Your task to perform on an android device: turn on improve location accuracy Image 0: 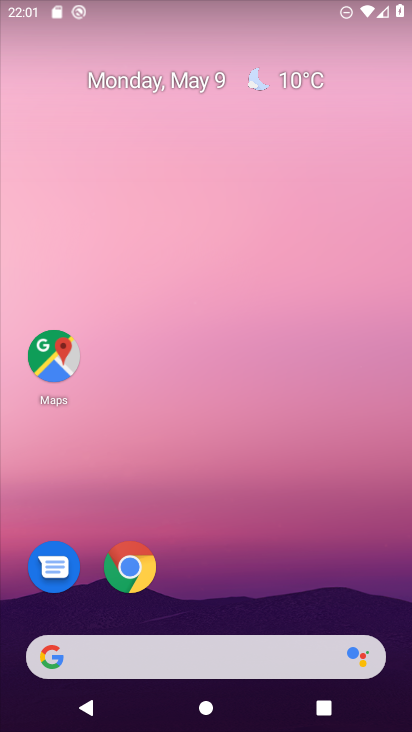
Step 0: drag from (255, 576) to (336, 51)
Your task to perform on an android device: turn on improve location accuracy Image 1: 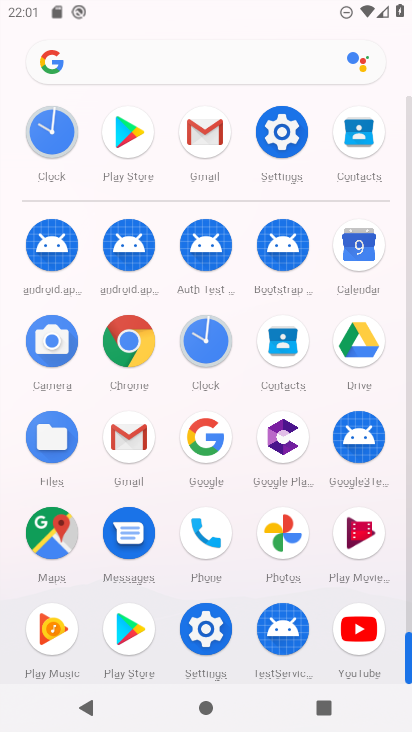
Step 1: click (298, 137)
Your task to perform on an android device: turn on improve location accuracy Image 2: 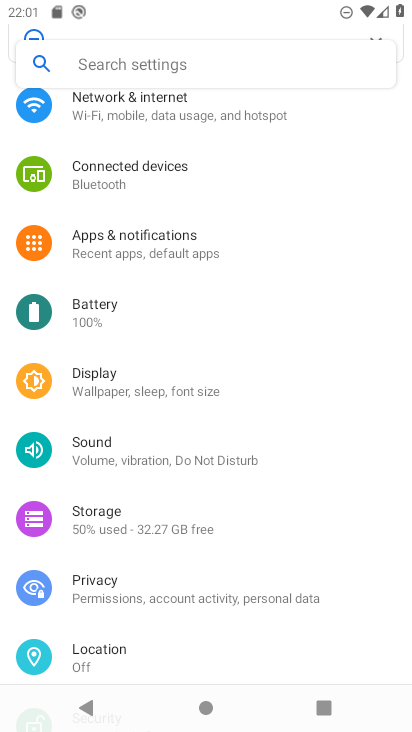
Step 2: click (131, 653)
Your task to perform on an android device: turn on improve location accuracy Image 3: 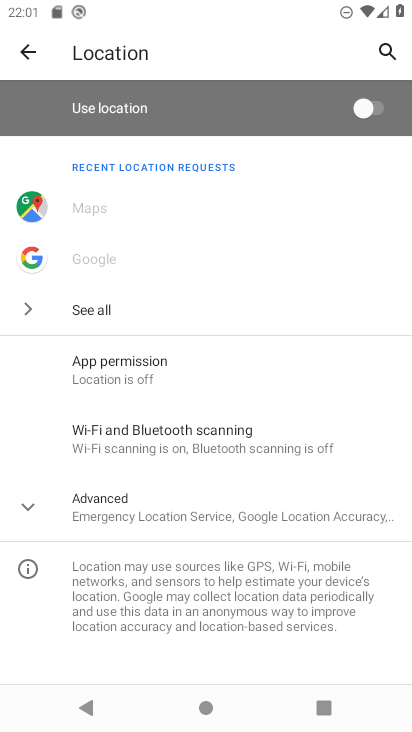
Step 3: click (32, 503)
Your task to perform on an android device: turn on improve location accuracy Image 4: 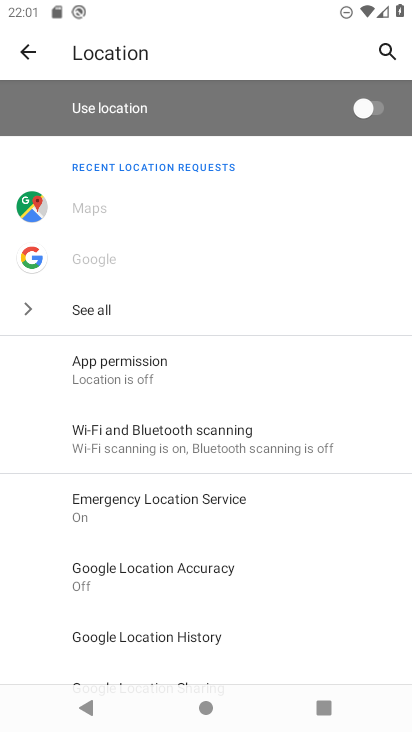
Step 4: click (213, 587)
Your task to perform on an android device: turn on improve location accuracy Image 5: 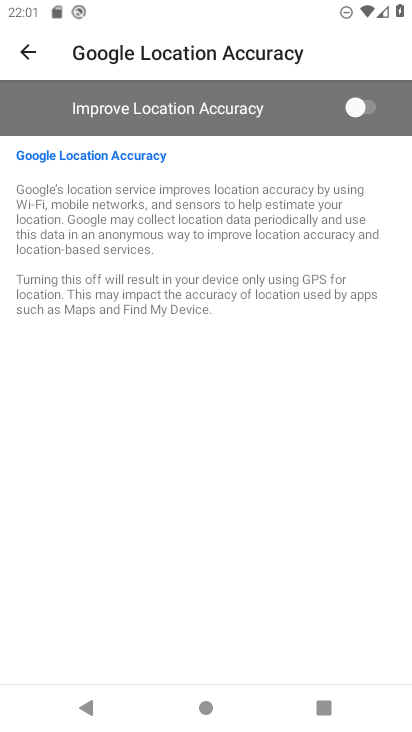
Step 5: click (354, 97)
Your task to perform on an android device: turn on improve location accuracy Image 6: 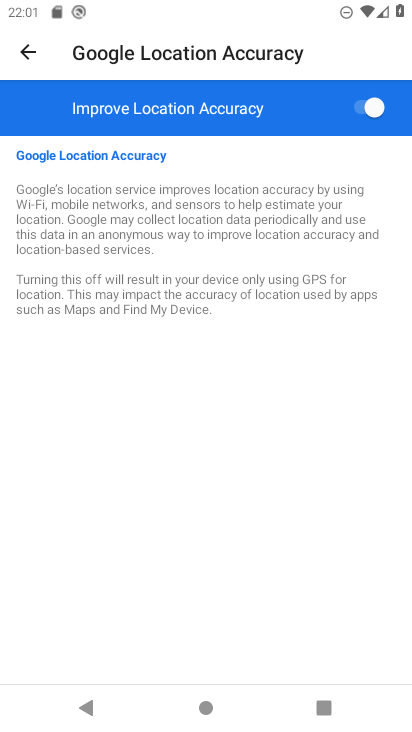
Step 6: task complete